Your task to perform on an android device: check out phone information Image 0: 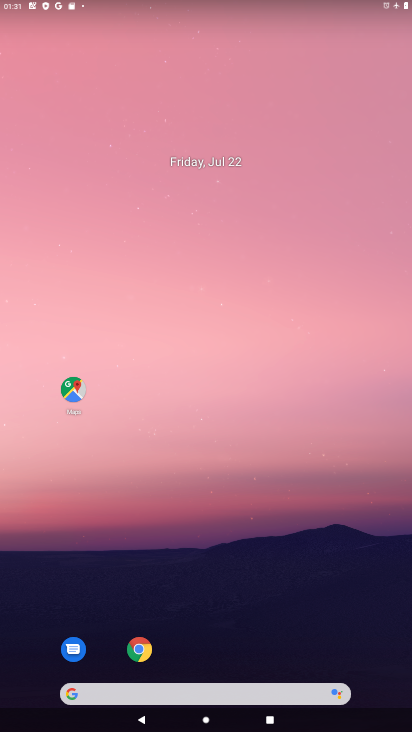
Step 0: drag from (328, 613) to (375, 26)
Your task to perform on an android device: check out phone information Image 1: 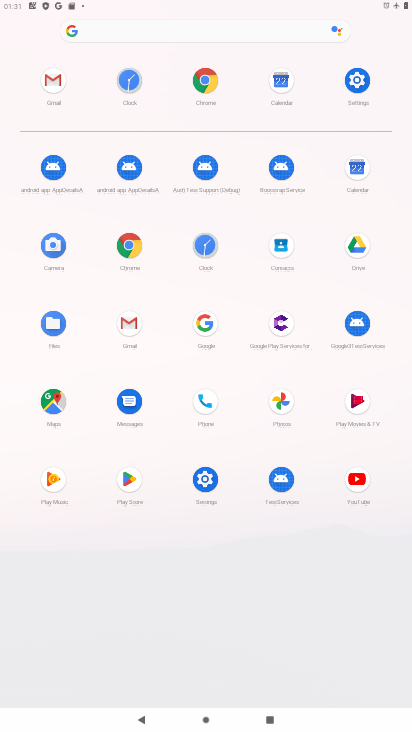
Step 1: click (211, 404)
Your task to perform on an android device: check out phone information Image 2: 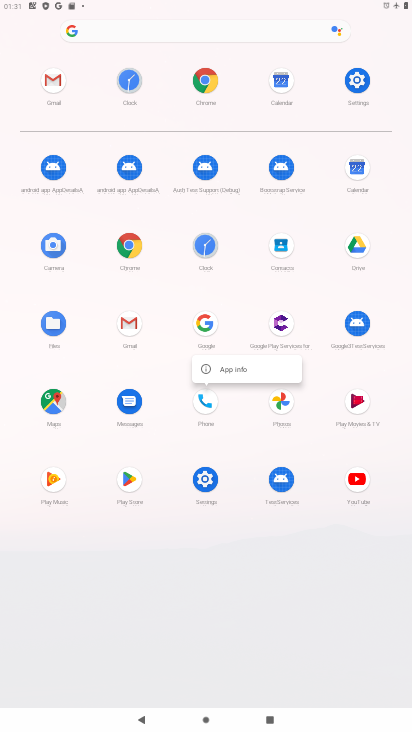
Step 2: click (239, 372)
Your task to perform on an android device: check out phone information Image 3: 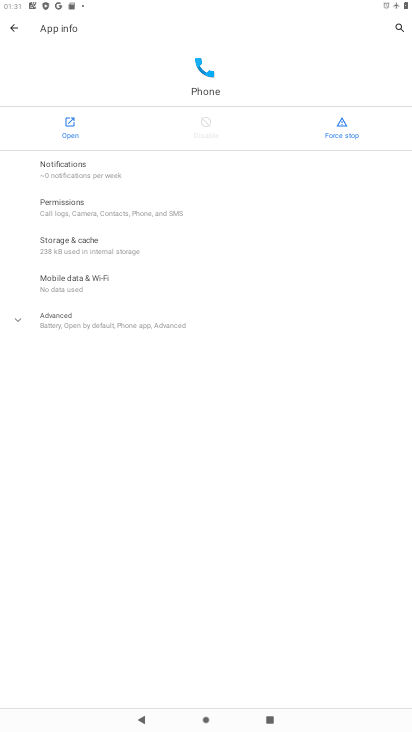
Step 3: click (66, 330)
Your task to perform on an android device: check out phone information Image 4: 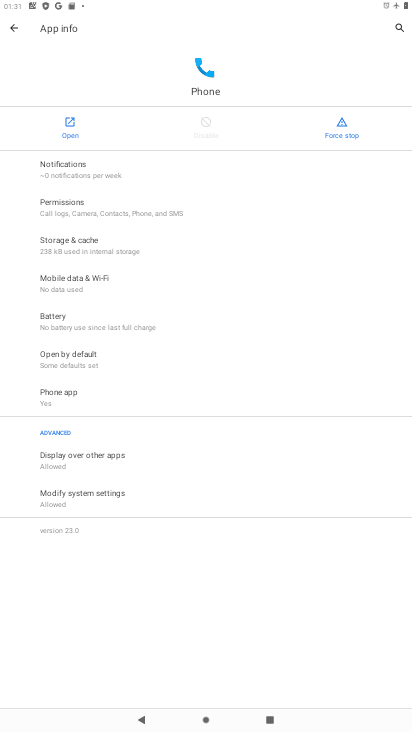
Step 4: task complete